Your task to perform on an android device: Go to wifi settings Image 0: 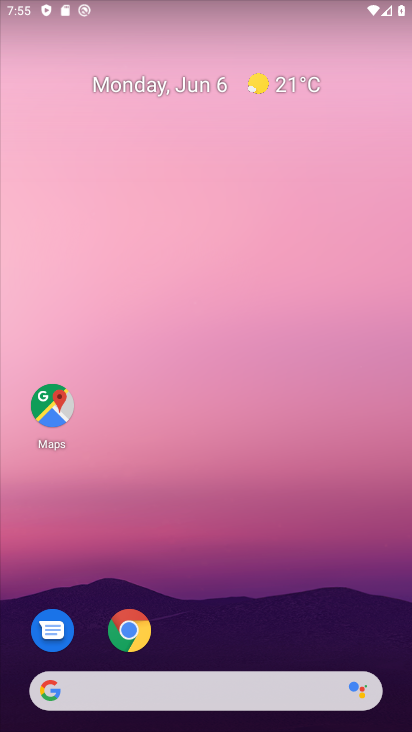
Step 0: drag from (266, 622) to (153, 132)
Your task to perform on an android device: Go to wifi settings Image 1: 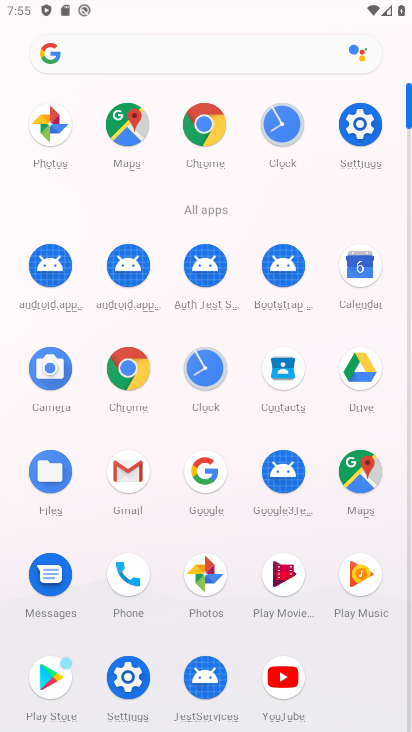
Step 1: click (359, 122)
Your task to perform on an android device: Go to wifi settings Image 2: 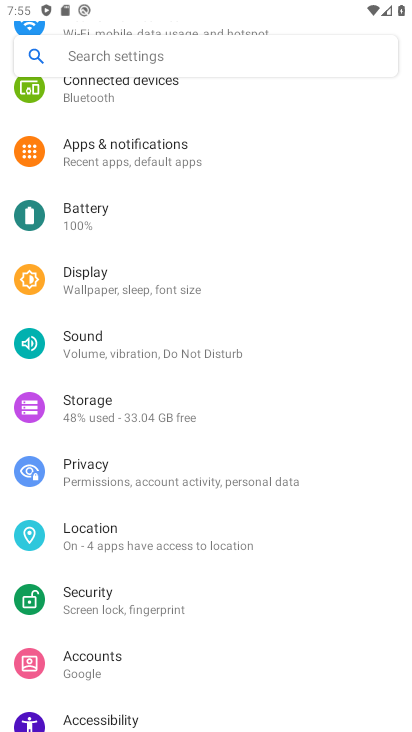
Step 2: drag from (215, 244) to (179, 374)
Your task to perform on an android device: Go to wifi settings Image 3: 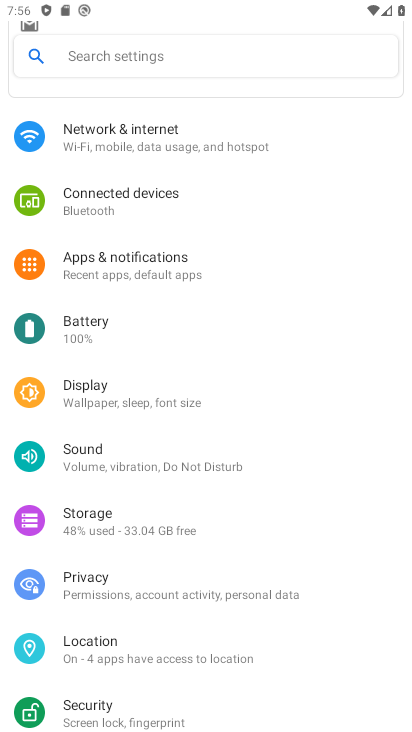
Step 3: click (131, 141)
Your task to perform on an android device: Go to wifi settings Image 4: 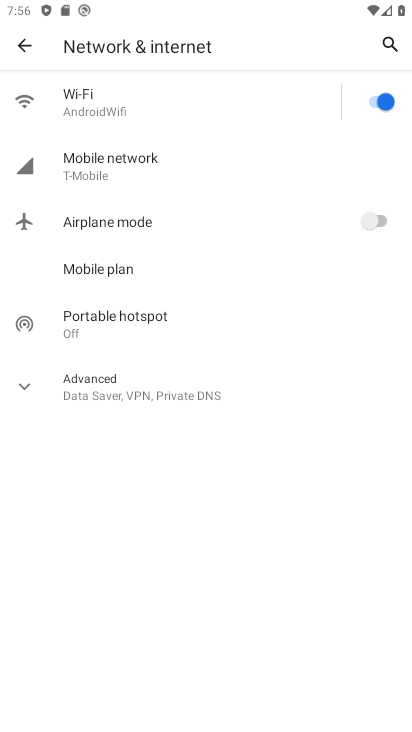
Step 4: click (104, 102)
Your task to perform on an android device: Go to wifi settings Image 5: 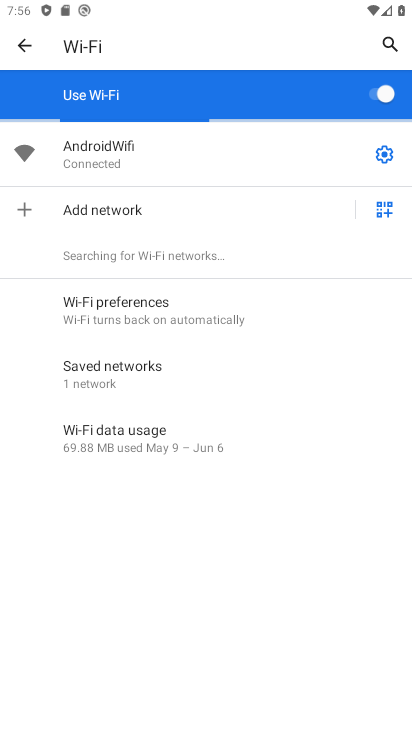
Step 5: click (388, 157)
Your task to perform on an android device: Go to wifi settings Image 6: 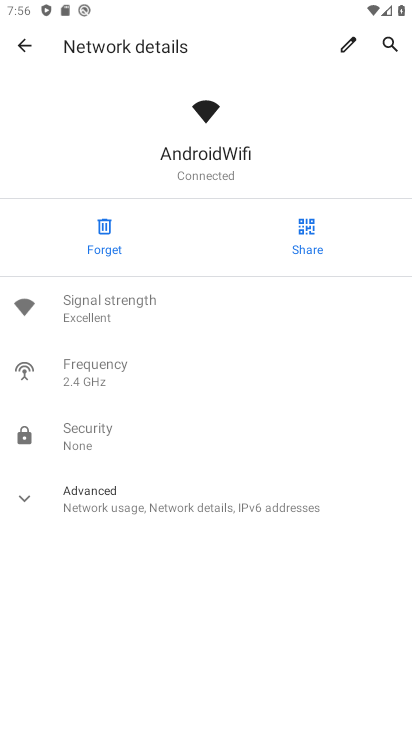
Step 6: task complete